Your task to perform on an android device: Go to display settings Image 0: 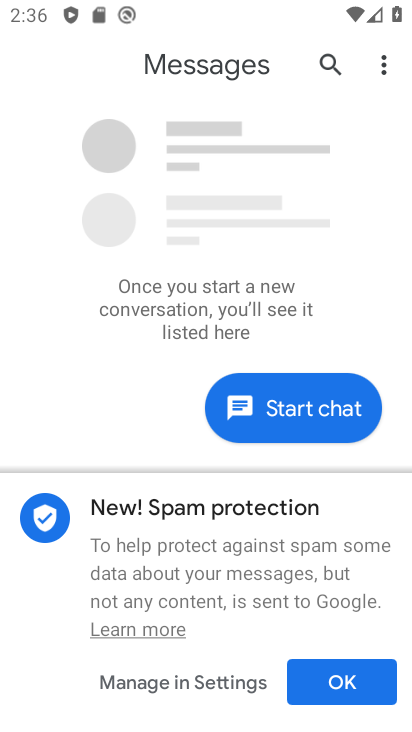
Step 0: press home button
Your task to perform on an android device: Go to display settings Image 1: 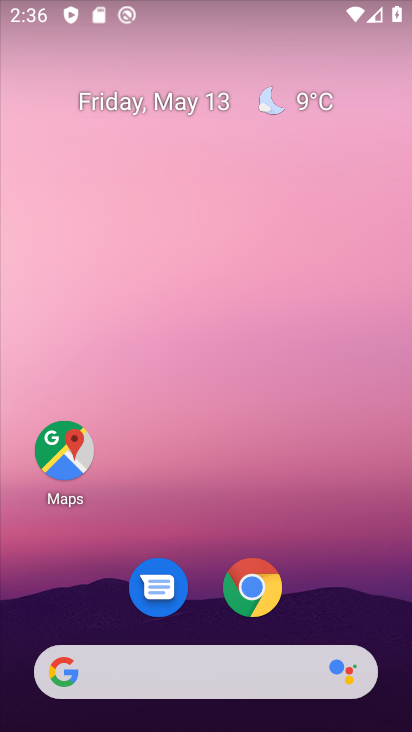
Step 1: drag from (345, 552) to (362, 148)
Your task to perform on an android device: Go to display settings Image 2: 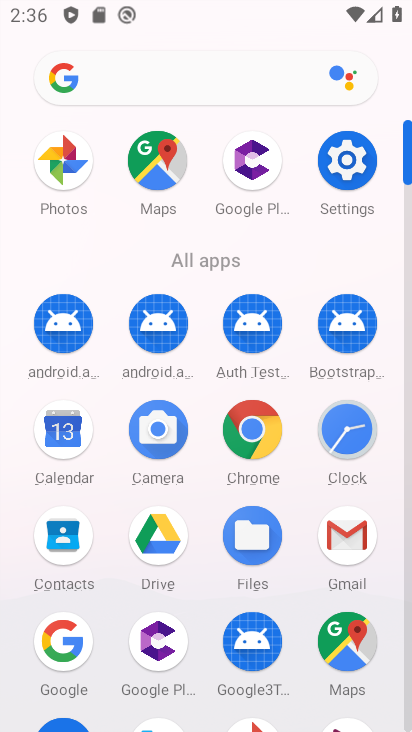
Step 2: click (361, 167)
Your task to perform on an android device: Go to display settings Image 3: 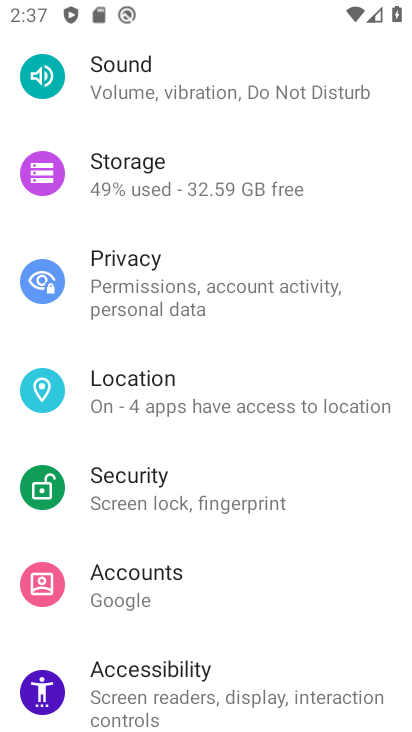
Step 3: drag from (250, 499) to (279, 623)
Your task to perform on an android device: Go to display settings Image 4: 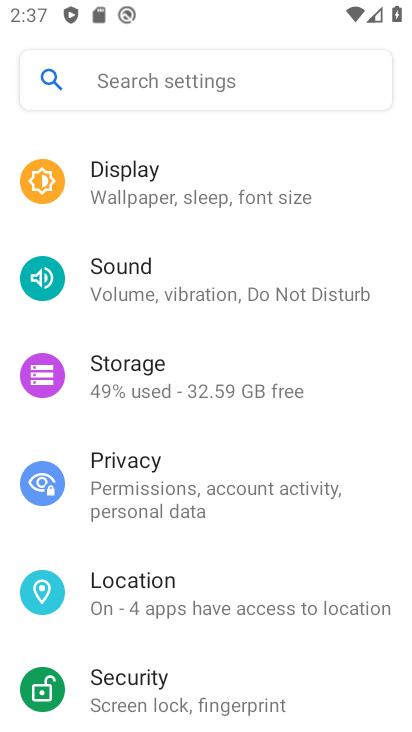
Step 4: click (223, 150)
Your task to perform on an android device: Go to display settings Image 5: 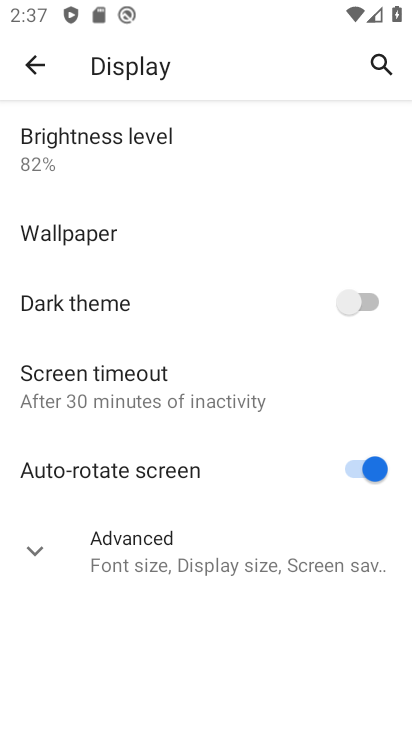
Step 5: click (42, 558)
Your task to perform on an android device: Go to display settings Image 6: 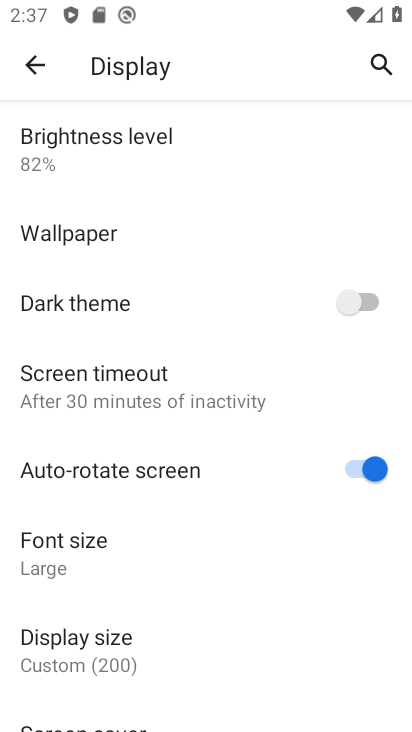
Step 6: task complete